Your task to perform on an android device: visit the assistant section in the google photos Image 0: 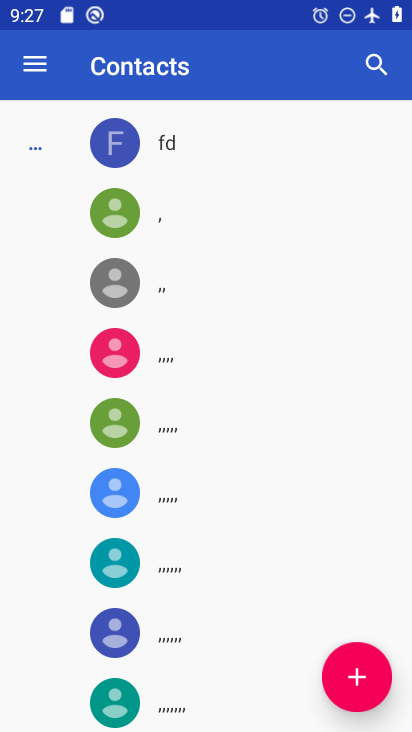
Step 0: press home button
Your task to perform on an android device: visit the assistant section in the google photos Image 1: 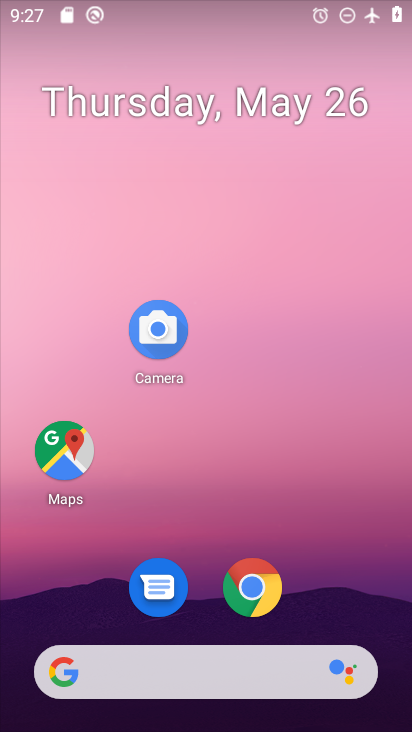
Step 1: drag from (207, 619) to (219, 255)
Your task to perform on an android device: visit the assistant section in the google photos Image 2: 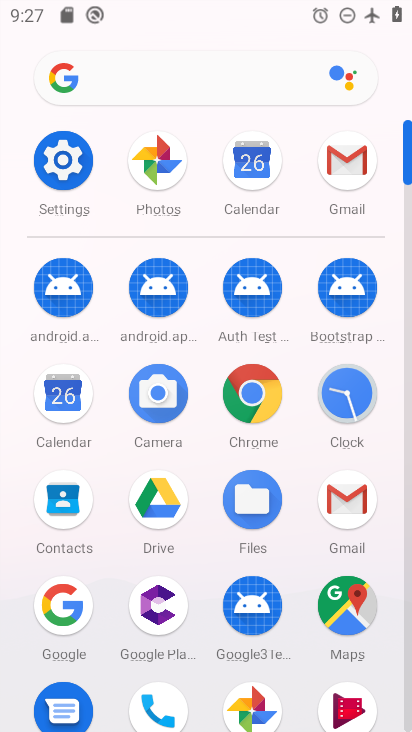
Step 2: click (151, 165)
Your task to perform on an android device: visit the assistant section in the google photos Image 3: 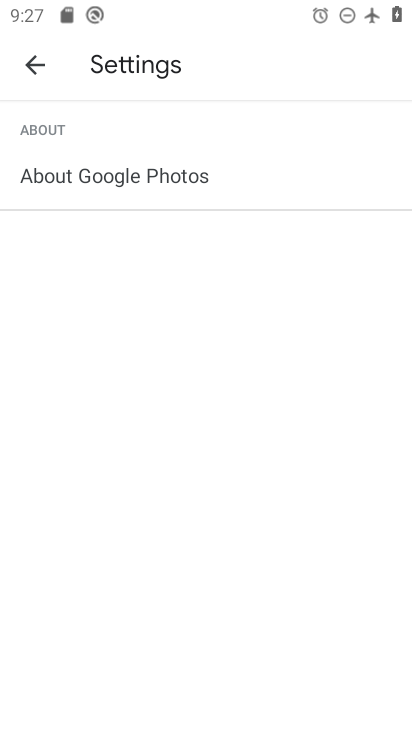
Step 3: click (44, 72)
Your task to perform on an android device: visit the assistant section in the google photos Image 4: 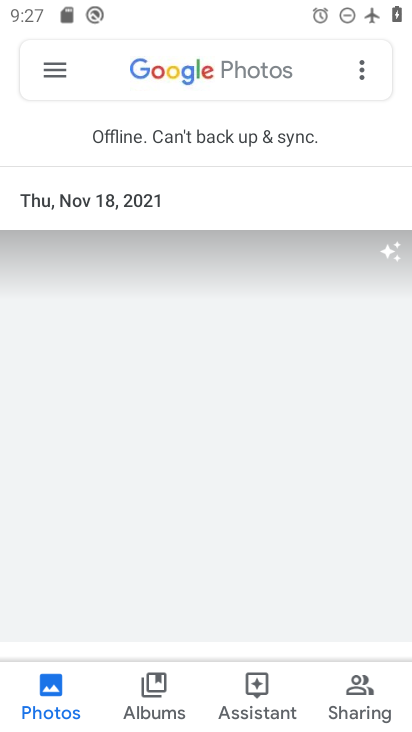
Step 4: click (265, 696)
Your task to perform on an android device: visit the assistant section in the google photos Image 5: 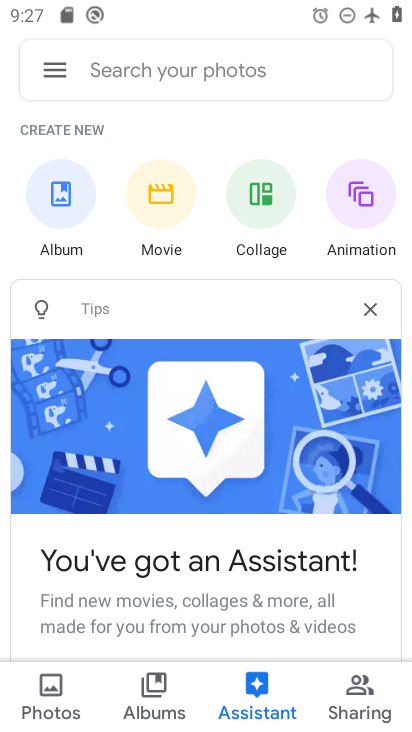
Step 5: task complete